Your task to perform on an android device: Go to settings Image 0: 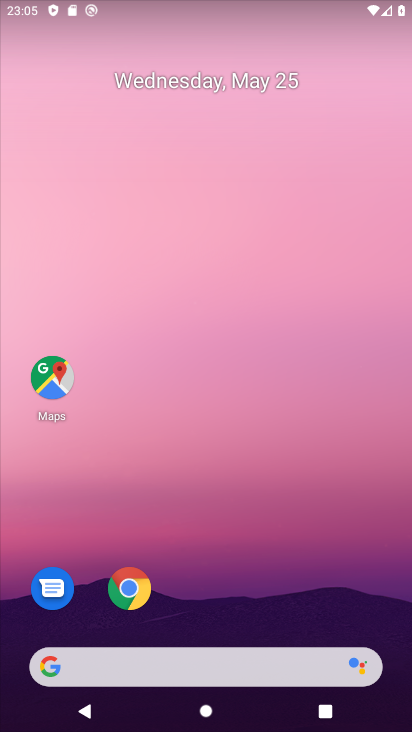
Step 0: drag from (249, 601) to (342, 178)
Your task to perform on an android device: Go to settings Image 1: 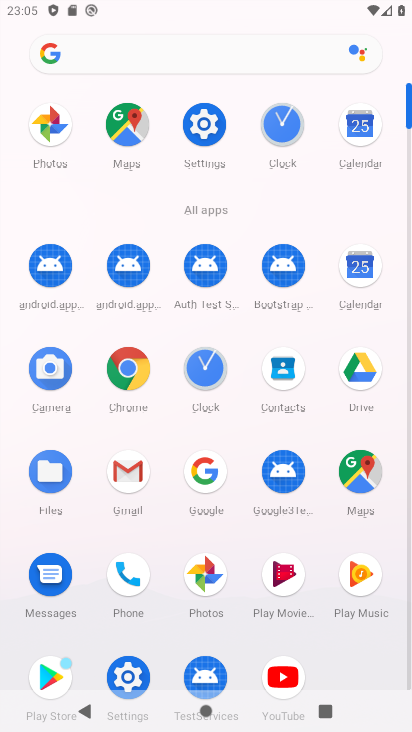
Step 1: click (208, 122)
Your task to perform on an android device: Go to settings Image 2: 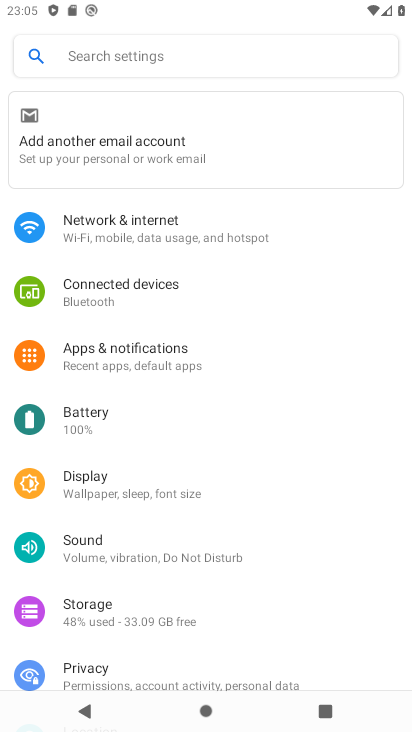
Step 2: task complete